Your task to perform on an android device: Open Maps and search for coffee Image 0: 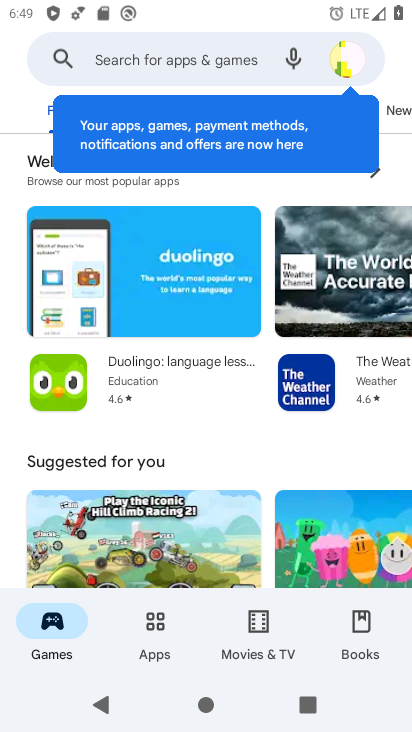
Step 0: press home button
Your task to perform on an android device: Open Maps and search for coffee Image 1: 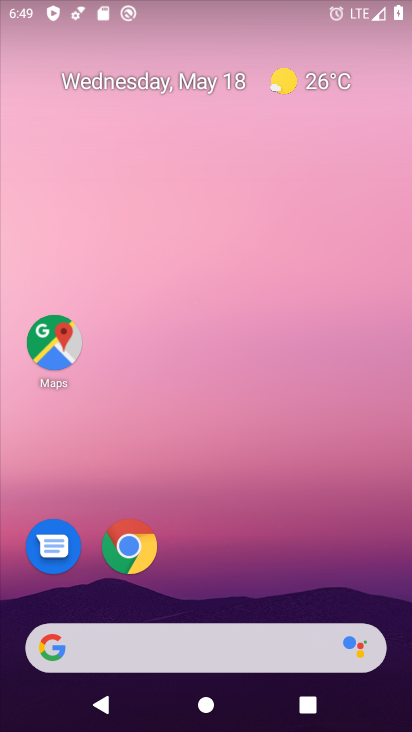
Step 1: drag from (395, 628) to (254, 25)
Your task to perform on an android device: Open Maps and search for coffee Image 2: 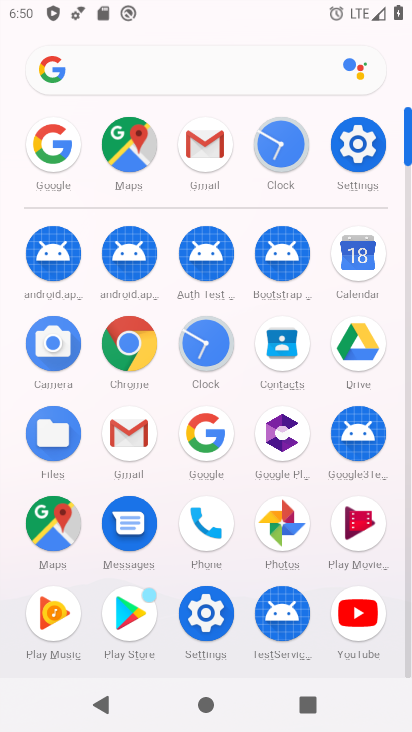
Step 2: click (45, 517)
Your task to perform on an android device: Open Maps and search for coffee Image 3: 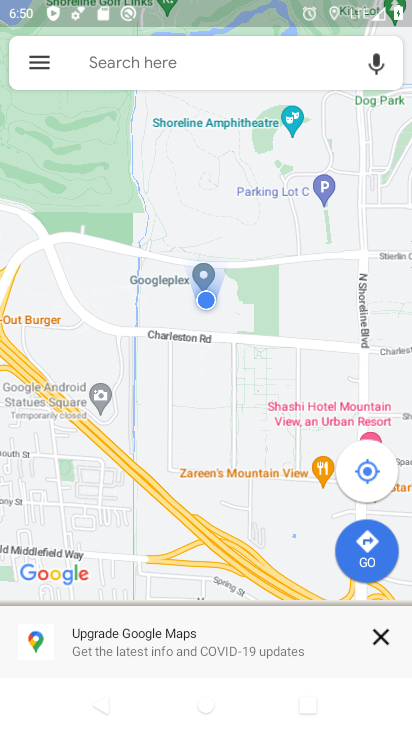
Step 3: click (133, 68)
Your task to perform on an android device: Open Maps and search for coffee Image 4: 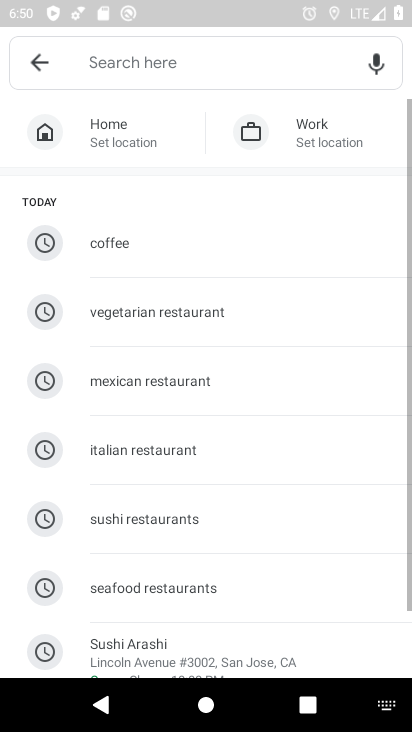
Step 4: click (110, 246)
Your task to perform on an android device: Open Maps and search for coffee Image 5: 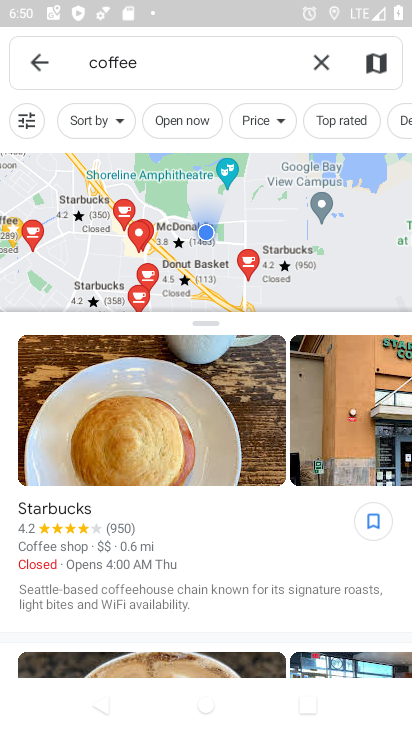
Step 5: task complete